Your task to perform on an android device: change your default location settings in chrome Image 0: 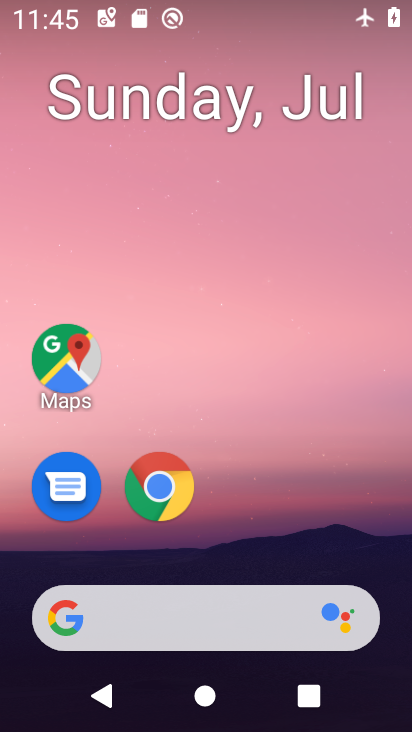
Step 0: press home button
Your task to perform on an android device: change your default location settings in chrome Image 1: 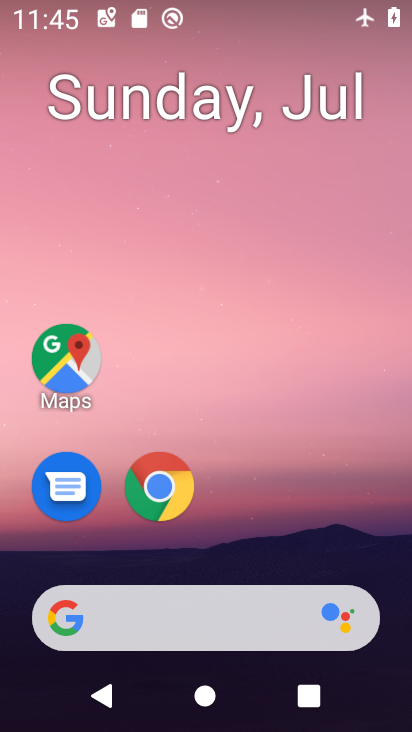
Step 1: drag from (340, 519) to (345, 25)
Your task to perform on an android device: change your default location settings in chrome Image 2: 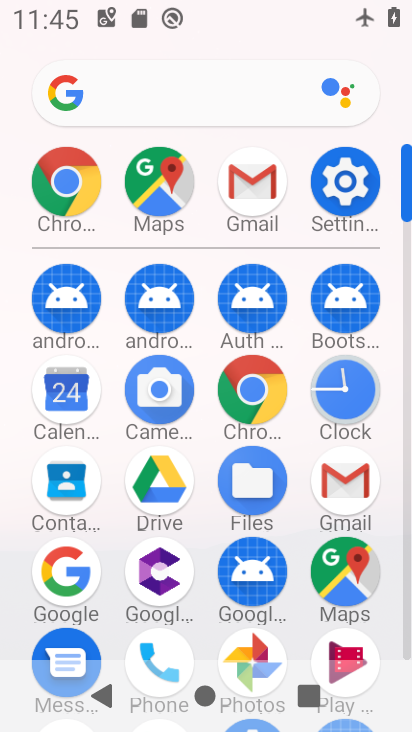
Step 2: click (246, 392)
Your task to perform on an android device: change your default location settings in chrome Image 3: 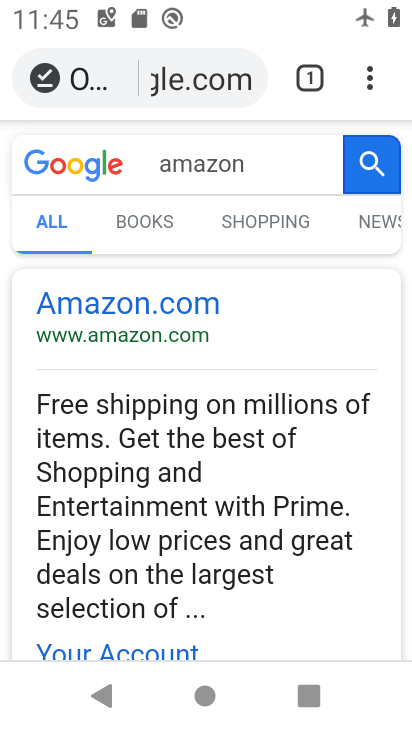
Step 3: click (369, 87)
Your task to perform on an android device: change your default location settings in chrome Image 4: 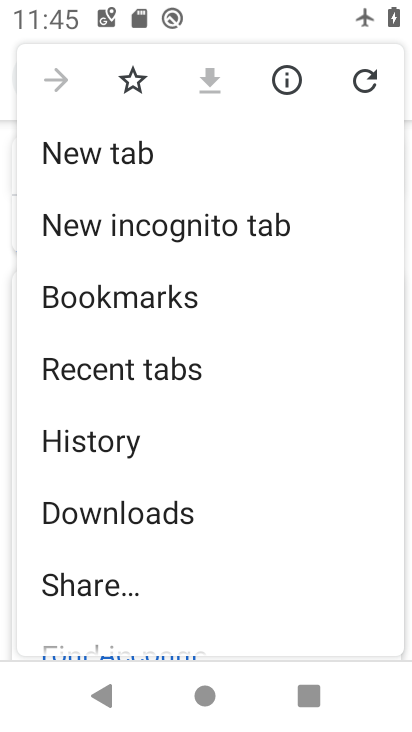
Step 4: drag from (293, 455) to (289, 285)
Your task to perform on an android device: change your default location settings in chrome Image 5: 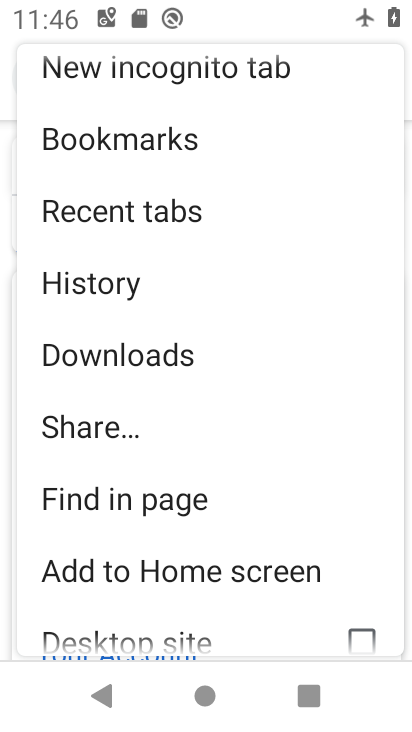
Step 5: drag from (277, 425) to (280, 237)
Your task to perform on an android device: change your default location settings in chrome Image 6: 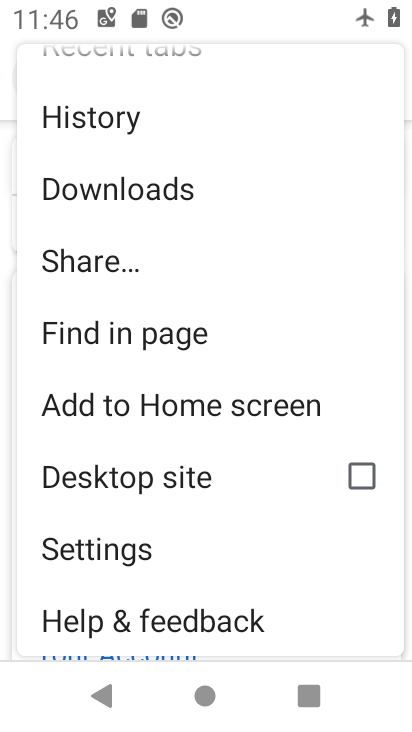
Step 6: drag from (278, 448) to (278, 315)
Your task to perform on an android device: change your default location settings in chrome Image 7: 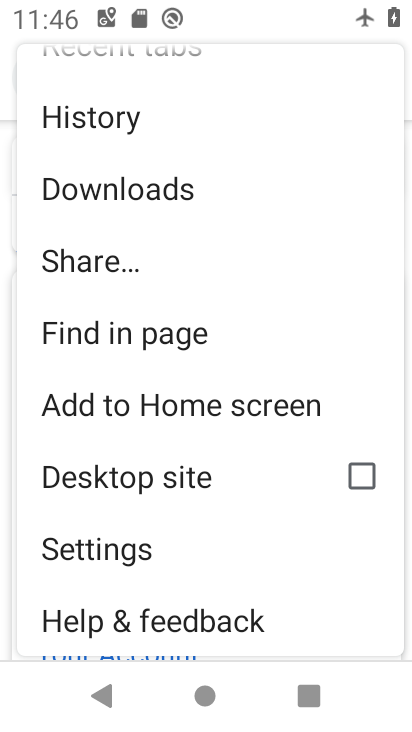
Step 7: click (230, 542)
Your task to perform on an android device: change your default location settings in chrome Image 8: 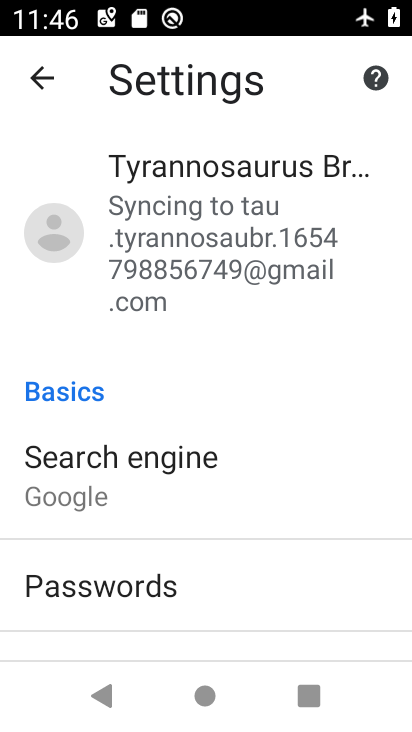
Step 8: drag from (310, 546) to (312, 446)
Your task to perform on an android device: change your default location settings in chrome Image 9: 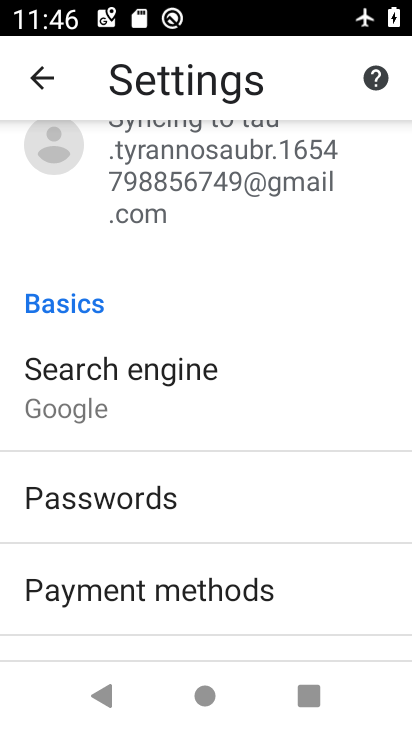
Step 9: drag from (314, 574) to (313, 452)
Your task to perform on an android device: change your default location settings in chrome Image 10: 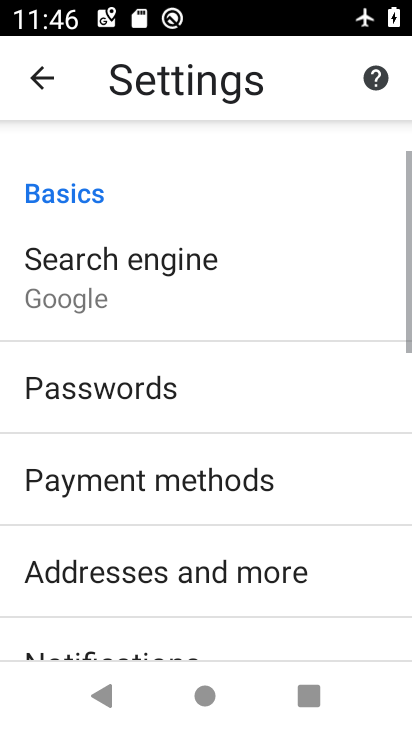
Step 10: drag from (306, 599) to (320, 463)
Your task to perform on an android device: change your default location settings in chrome Image 11: 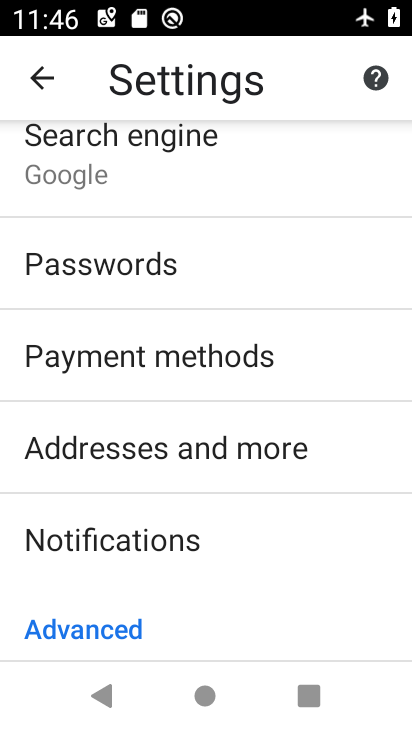
Step 11: drag from (318, 611) to (327, 474)
Your task to perform on an android device: change your default location settings in chrome Image 12: 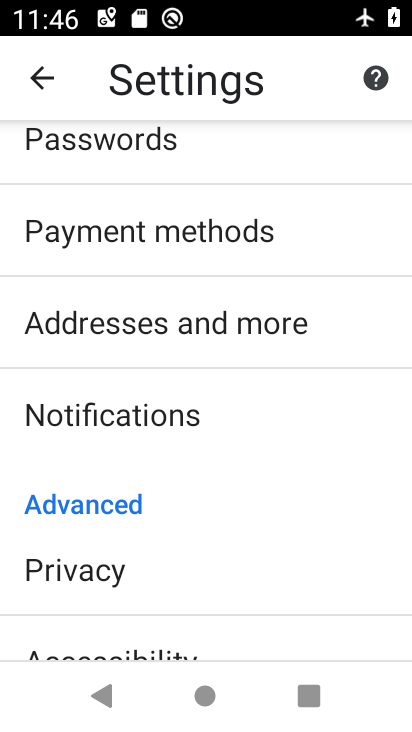
Step 12: drag from (305, 575) to (305, 421)
Your task to perform on an android device: change your default location settings in chrome Image 13: 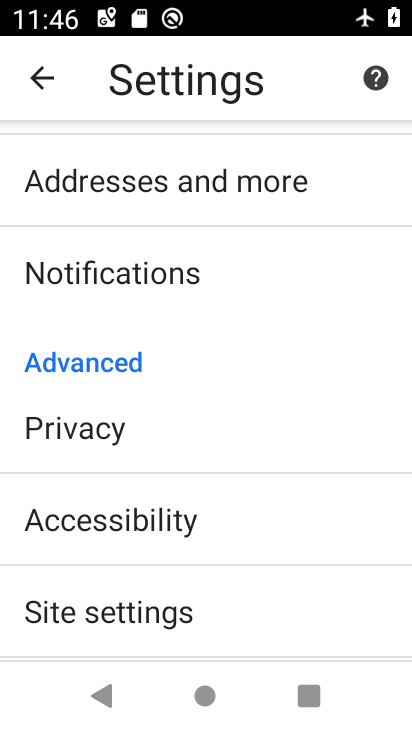
Step 13: click (296, 581)
Your task to perform on an android device: change your default location settings in chrome Image 14: 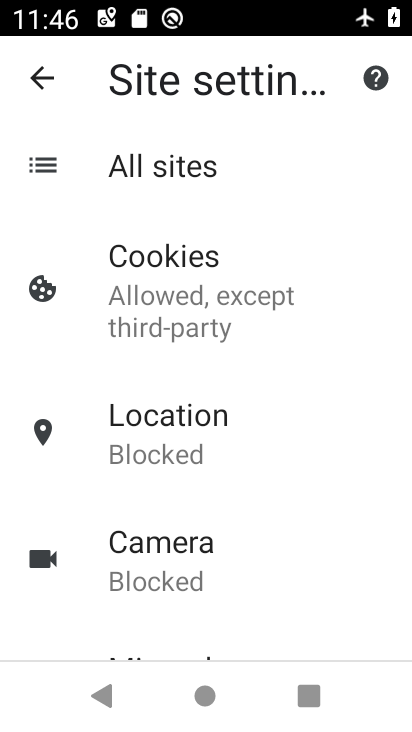
Step 14: click (221, 419)
Your task to perform on an android device: change your default location settings in chrome Image 15: 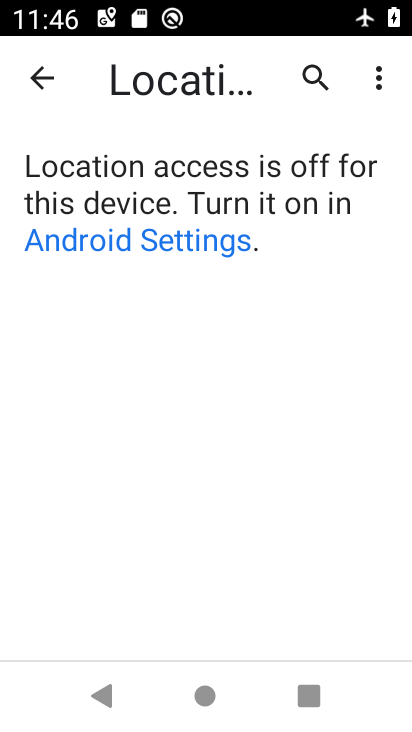
Step 15: click (251, 227)
Your task to perform on an android device: change your default location settings in chrome Image 16: 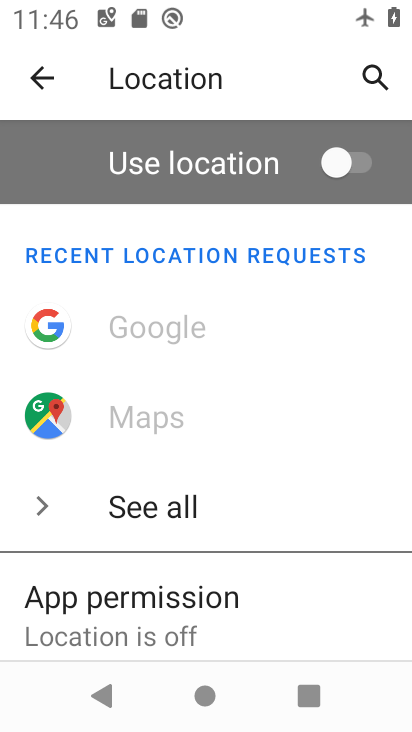
Step 16: click (339, 164)
Your task to perform on an android device: change your default location settings in chrome Image 17: 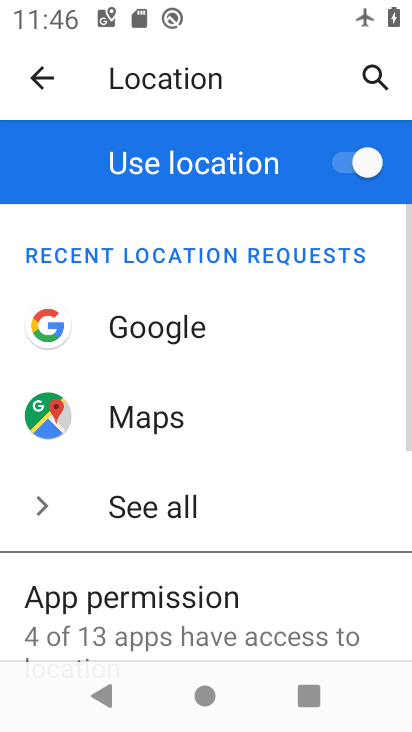
Step 17: task complete